Your task to perform on an android device: change the clock display to show seconds Image 0: 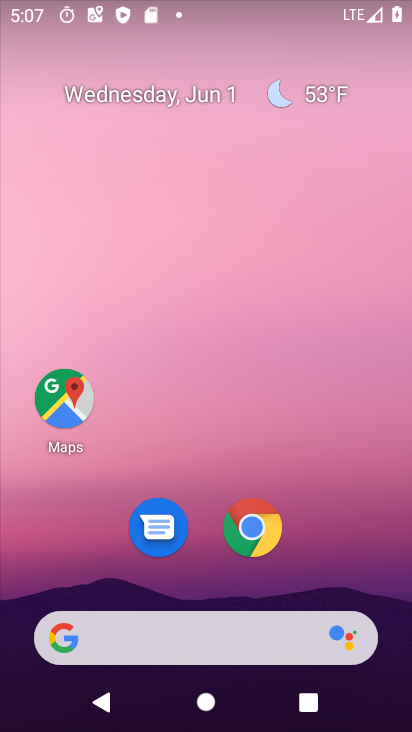
Step 0: drag from (307, 553) to (325, 54)
Your task to perform on an android device: change the clock display to show seconds Image 1: 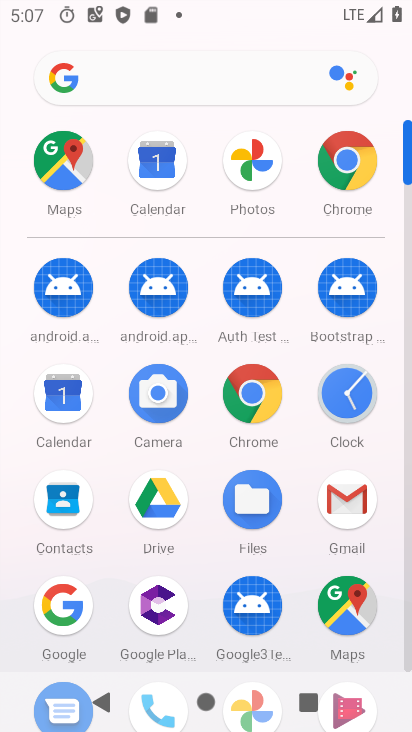
Step 1: click (323, 385)
Your task to perform on an android device: change the clock display to show seconds Image 2: 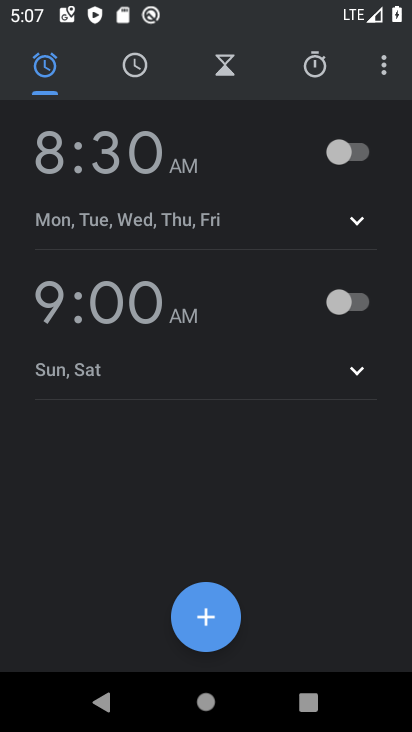
Step 2: click (392, 62)
Your task to perform on an android device: change the clock display to show seconds Image 3: 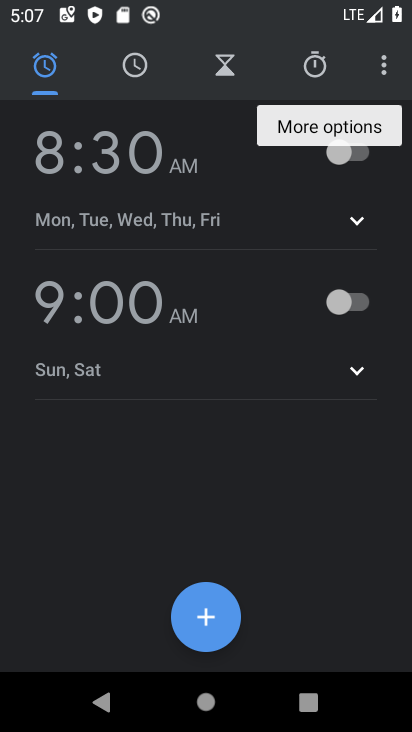
Step 3: click (392, 62)
Your task to perform on an android device: change the clock display to show seconds Image 4: 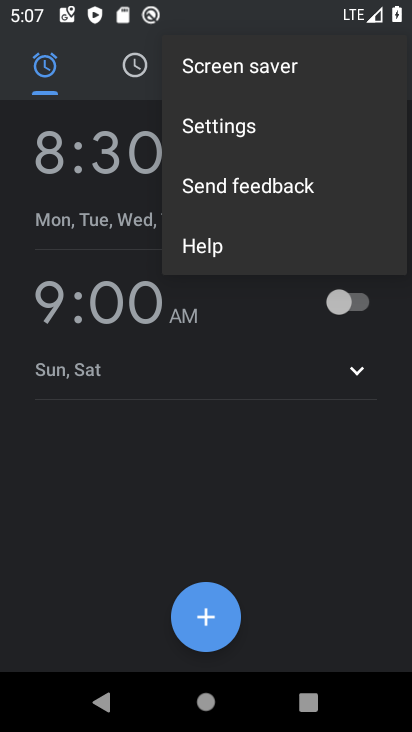
Step 4: click (214, 131)
Your task to perform on an android device: change the clock display to show seconds Image 5: 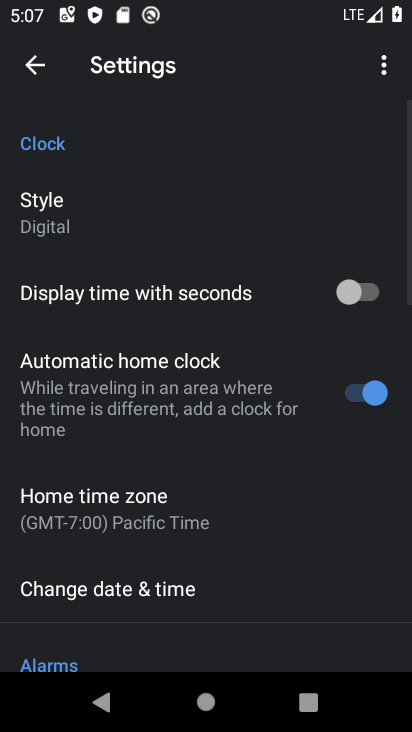
Step 5: click (350, 295)
Your task to perform on an android device: change the clock display to show seconds Image 6: 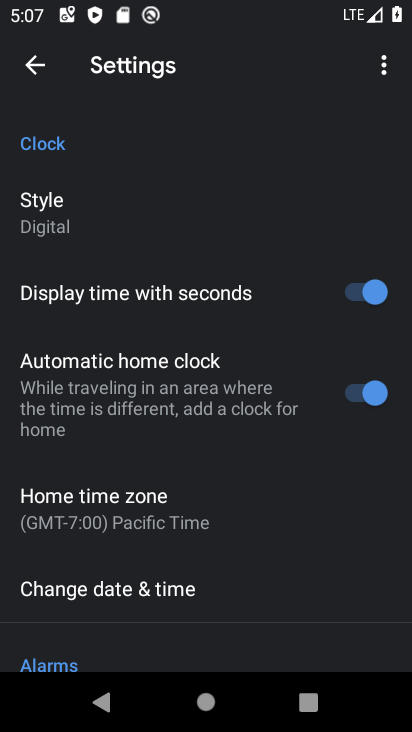
Step 6: task complete